Your task to perform on an android device: Open network settings Image 0: 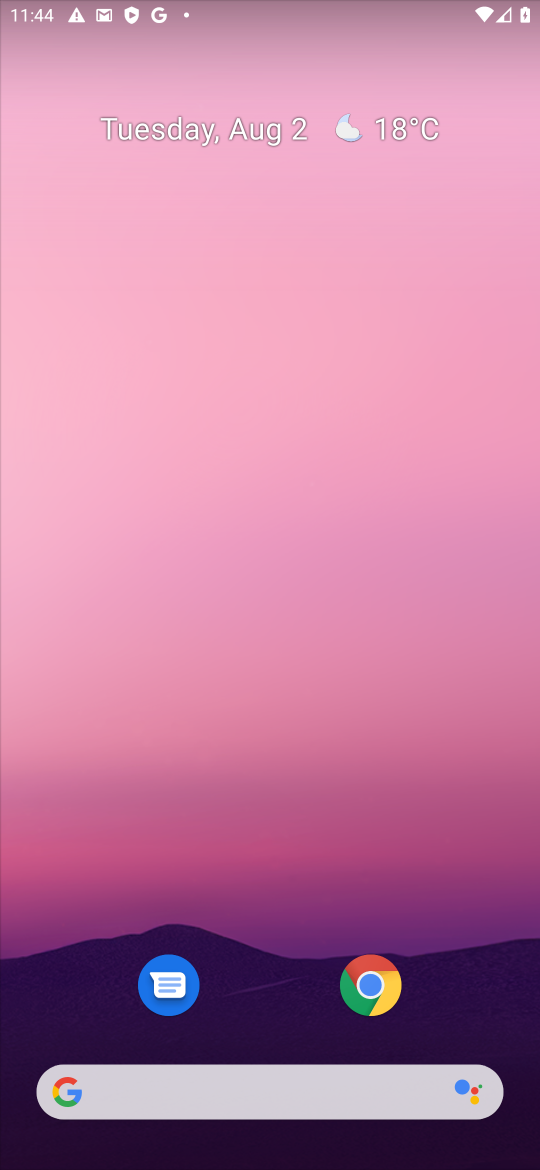
Step 0: drag from (278, 1055) to (279, 51)
Your task to perform on an android device: Open network settings Image 1: 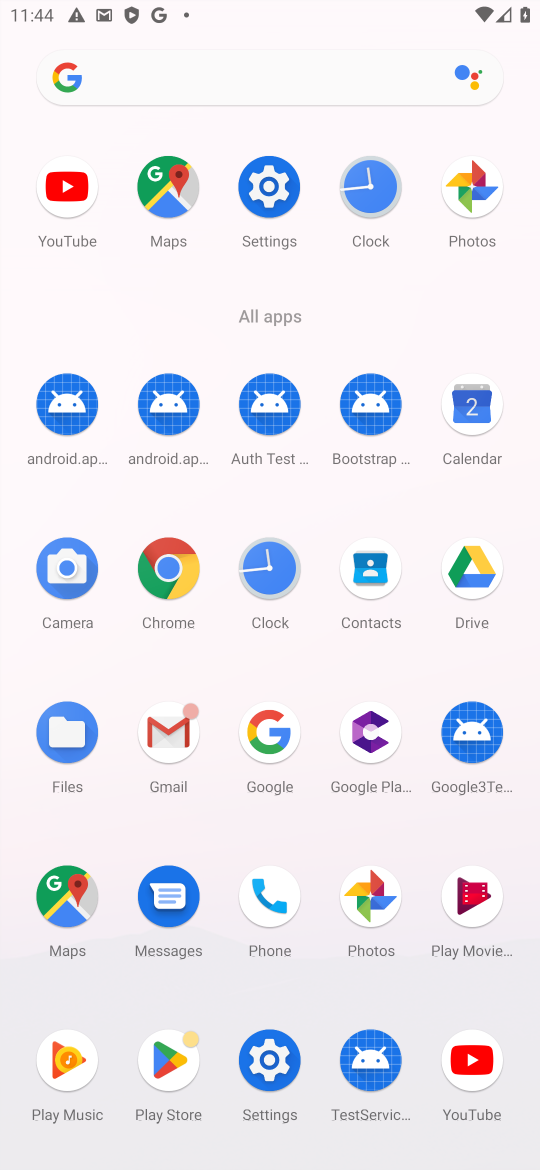
Step 1: click (274, 1090)
Your task to perform on an android device: Open network settings Image 2: 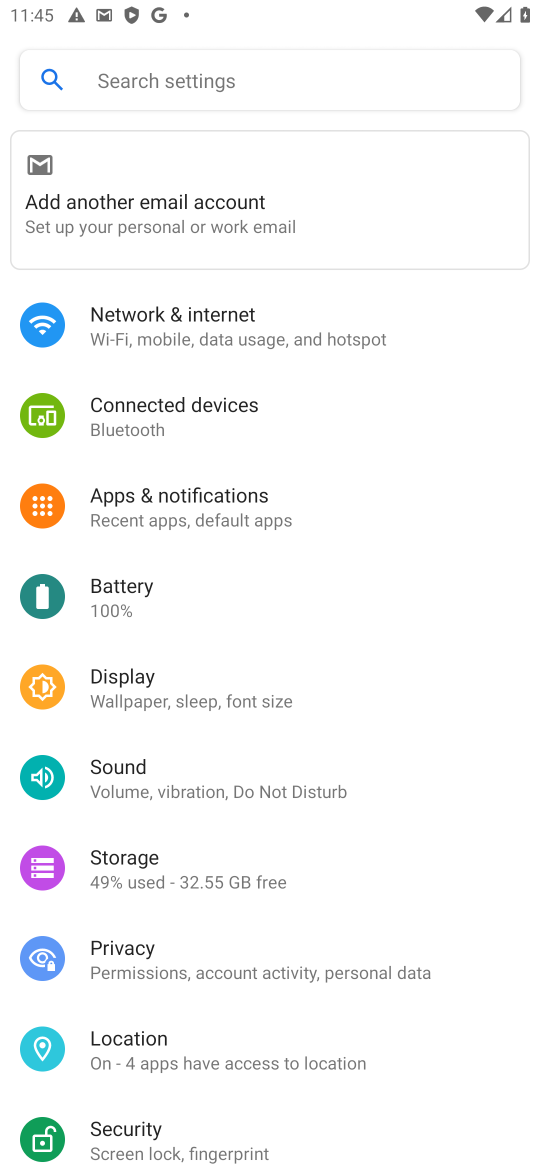
Step 2: click (303, 307)
Your task to perform on an android device: Open network settings Image 3: 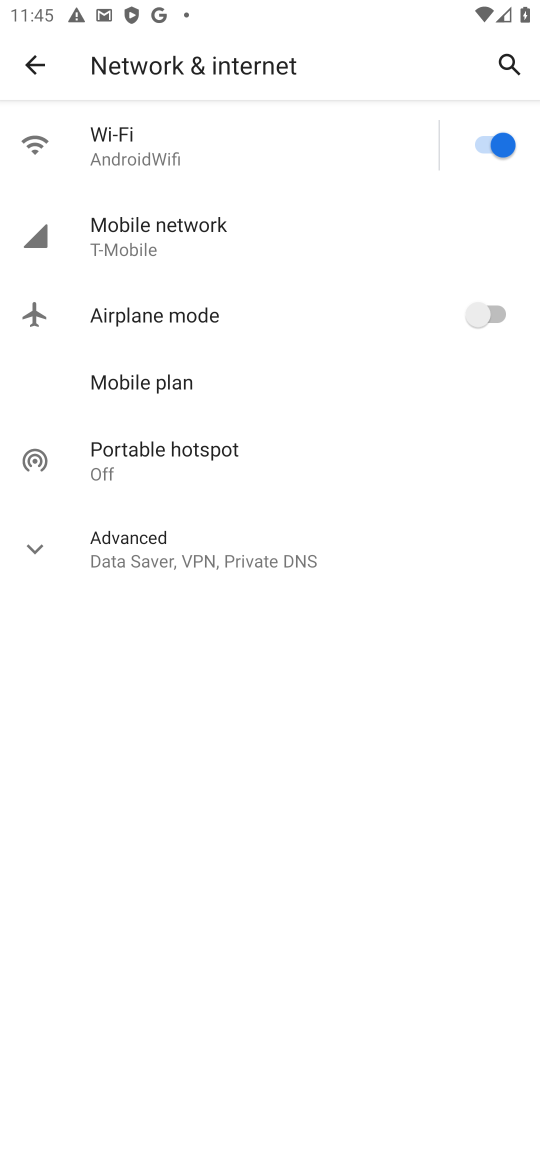
Step 3: task complete